Your task to perform on an android device: What is the news today? Image 0: 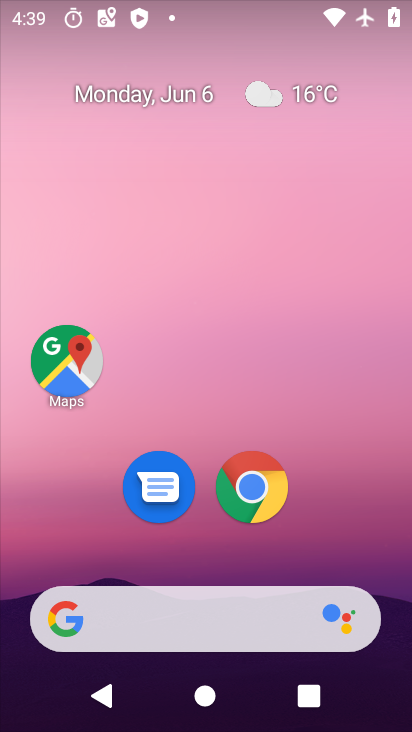
Step 0: click (250, 481)
Your task to perform on an android device: What is the news today? Image 1: 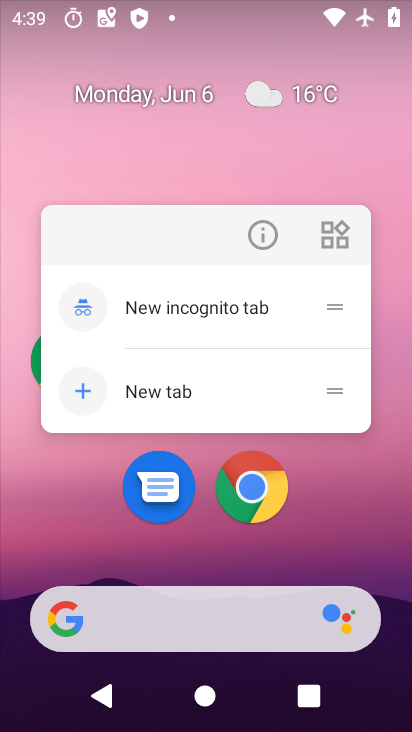
Step 1: click (257, 488)
Your task to perform on an android device: What is the news today? Image 2: 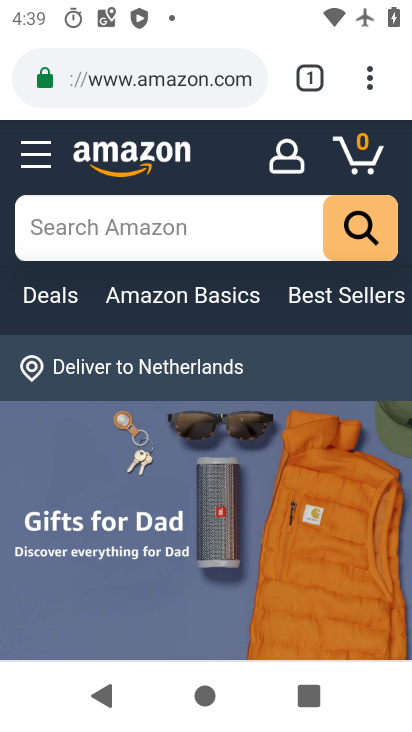
Step 2: click (214, 75)
Your task to perform on an android device: What is the news today? Image 3: 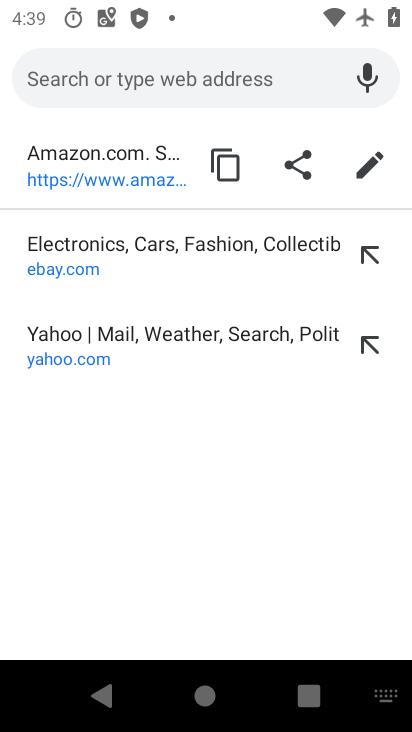
Step 3: type "news"
Your task to perform on an android device: What is the news today? Image 4: 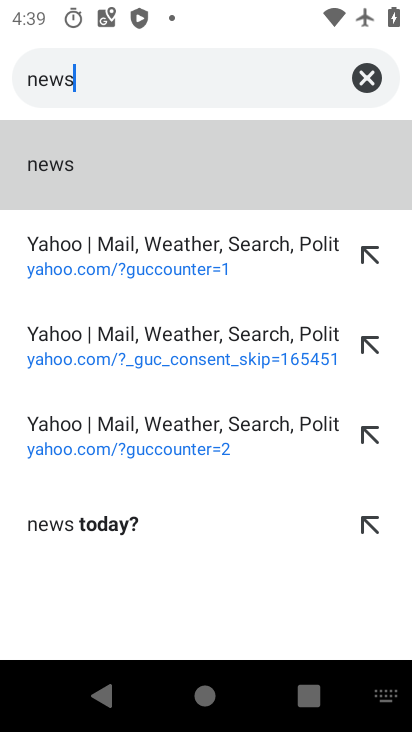
Step 4: click (50, 154)
Your task to perform on an android device: What is the news today? Image 5: 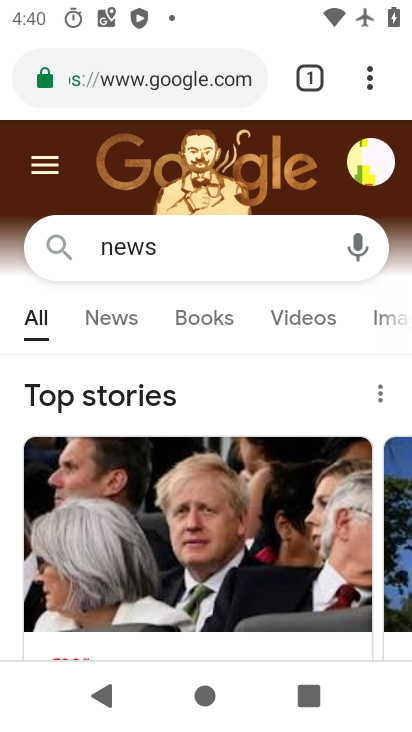
Step 5: click (116, 325)
Your task to perform on an android device: What is the news today? Image 6: 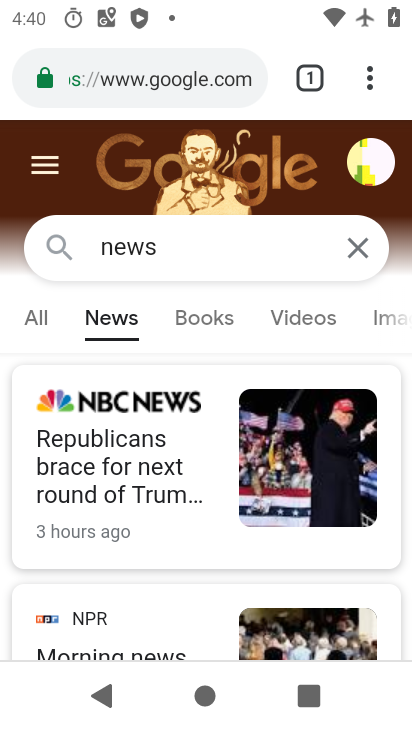
Step 6: task complete